Your task to perform on an android device: Open Google Chrome and click the shortcut for Amazon.com Image 0: 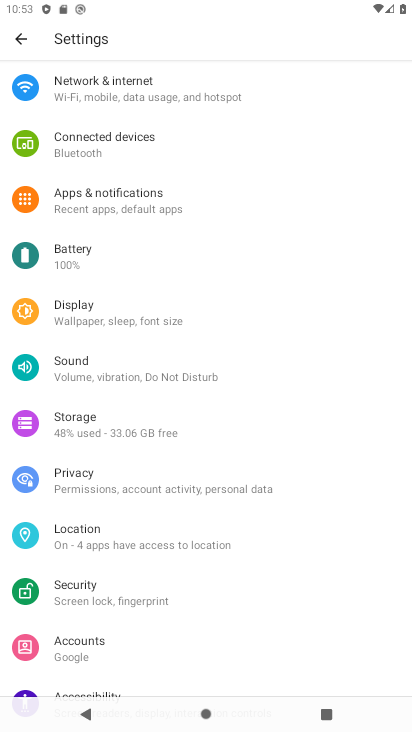
Step 0: drag from (312, 360) to (313, 300)
Your task to perform on an android device: Open Google Chrome and click the shortcut for Amazon.com Image 1: 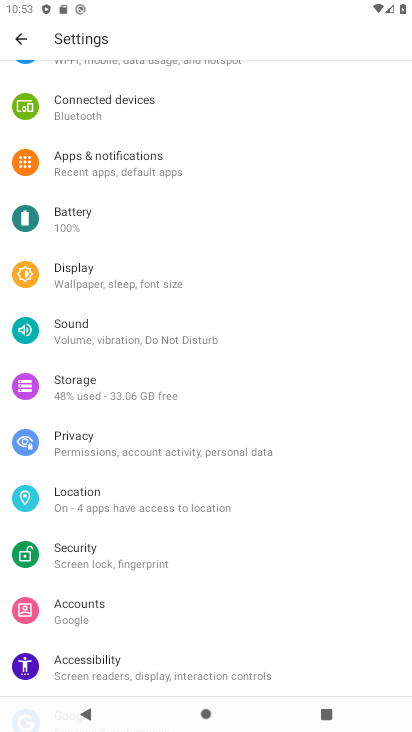
Step 1: press home button
Your task to perform on an android device: Open Google Chrome and click the shortcut for Amazon.com Image 2: 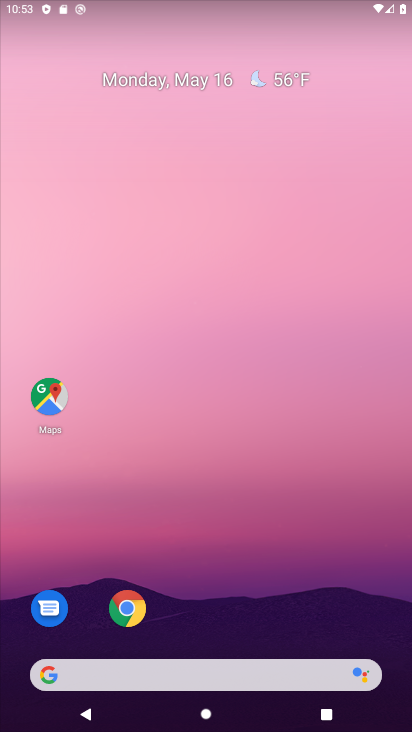
Step 2: drag from (330, 568) to (356, 135)
Your task to perform on an android device: Open Google Chrome and click the shortcut for Amazon.com Image 3: 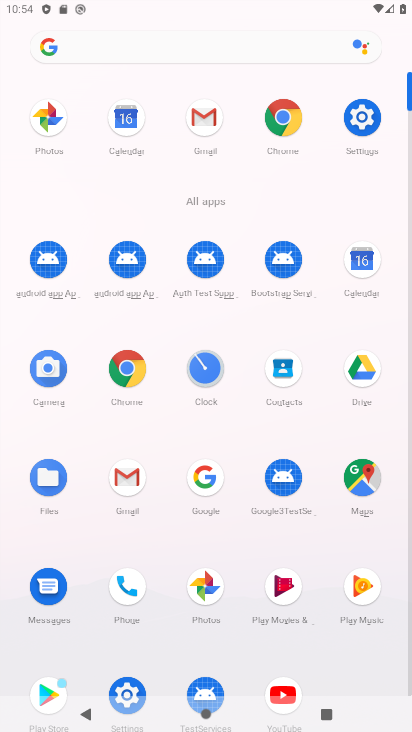
Step 3: click (131, 378)
Your task to perform on an android device: Open Google Chrome and click the shortcut for Amazon.com Image 4: 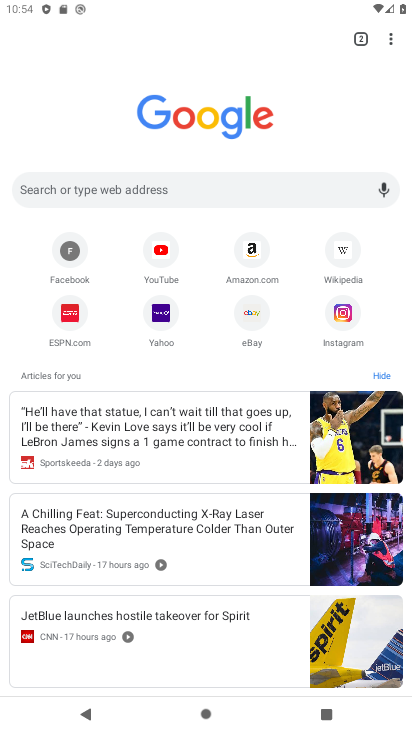
Step 4: click (254, 257)
Your task to perform on an android device: Open Google Chrome and click the shortcut for Amazon.com Image 5: 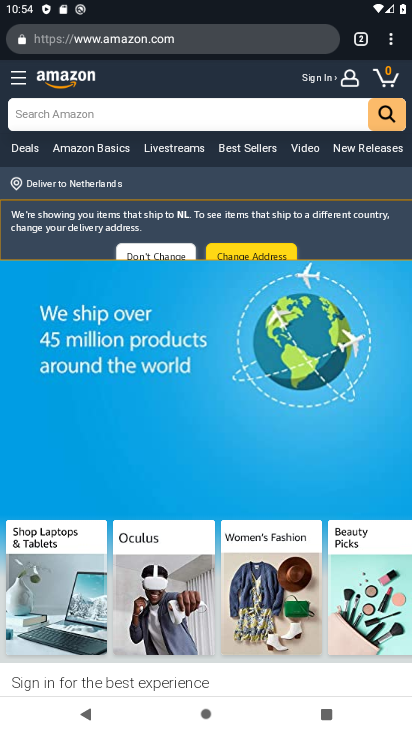
Step 5: task complete